Your task to perform on an android device: Open Google Image 0: 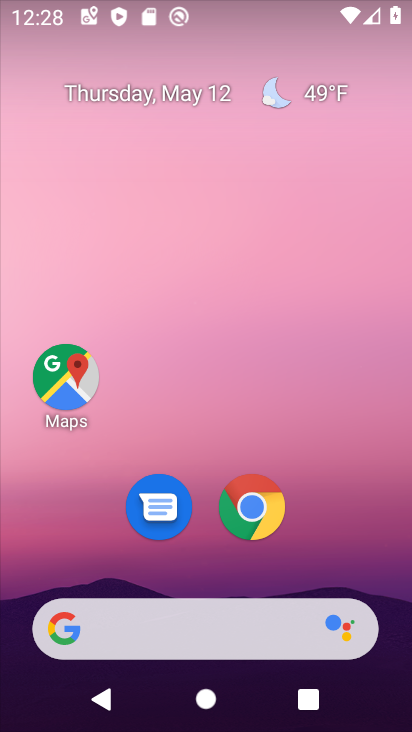
Step 0: drag from (293, 569) to (290, 83)
Your task to perform on an android device: Open Google Image 1: 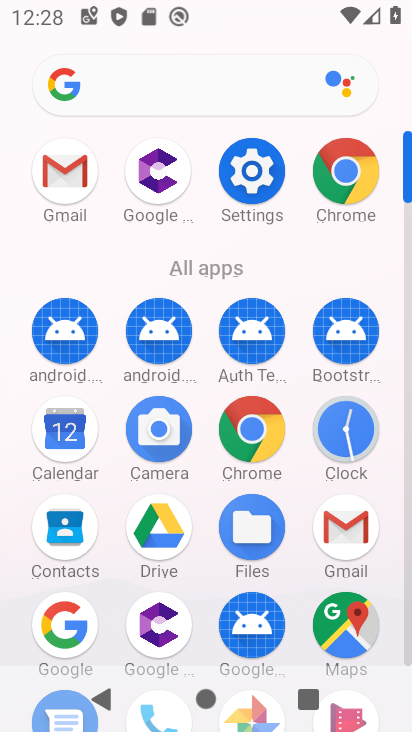
Step 1: click (51, 616)
Your task to perform on an android device: Open Google Image 2: 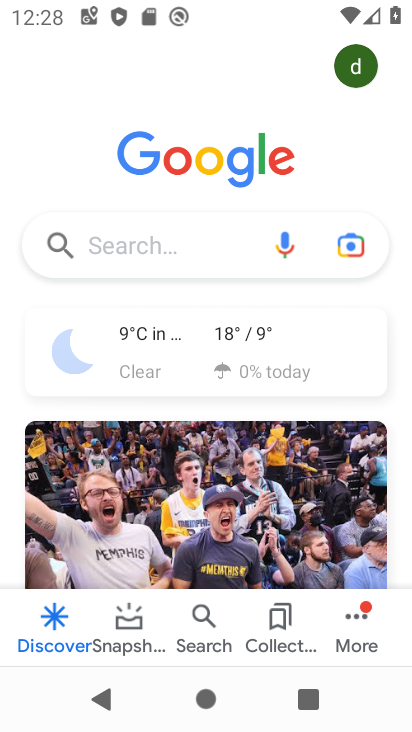
Step 2: task complete